Your task to perform on an android device: install app "Google Translate" Image 0: 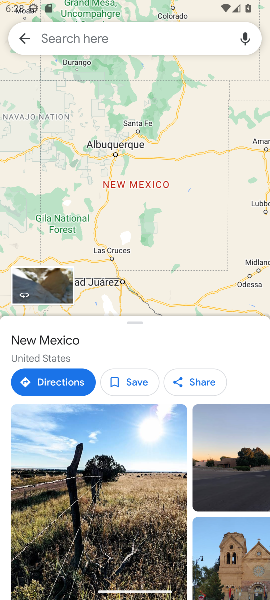
Step 0: press home button
Your task to perform on an android device: install app "Google Translate" Image 1: 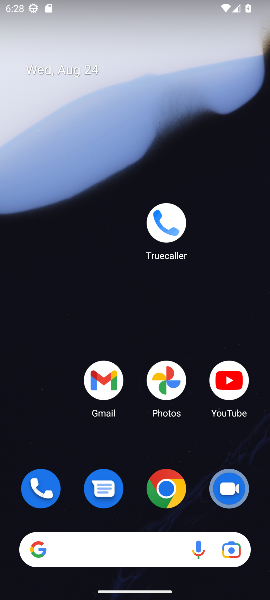
Step 1: drag from (139, 518) to (212, 41)
Your task to perform on an android device: install app "Google Translate" Image 2: 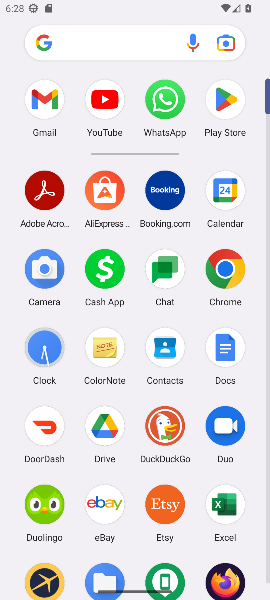
Step 2: click (215, 96)
Your task to perform on an android device: install app "Google Translate" Image 3: 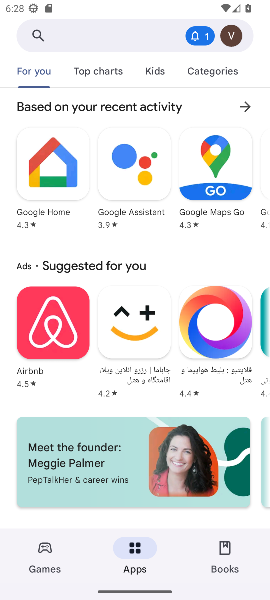
Step 3: click (195, 38)
Your task to perform on an android device: install app "Google Translate" Image 4: 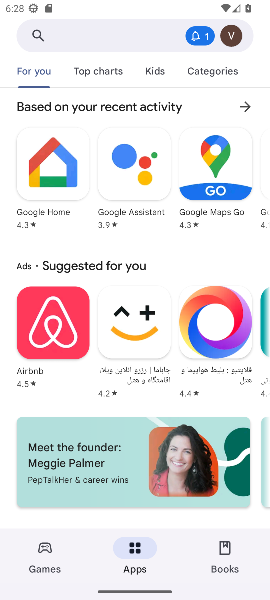
Step 4: click (172, 38)
Your task to perform on an android device: install app "Google Translate" Image 5: 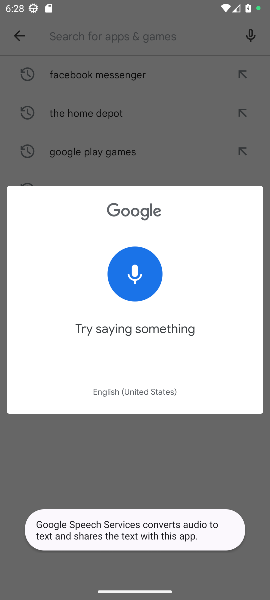
Step 5: click (206, 154)
Your task to perform on an android device: install app "Google Translate" Image 6: 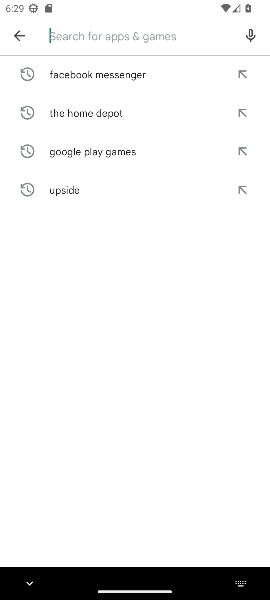
Step 6: type "google translate"
Your task to perform on an android device: install app "Google Translate" Image 7: 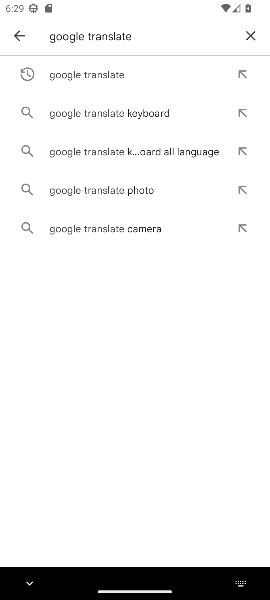
Step 7: click (71, 79)
Your task to perform on an android device: install app "Google Translate" Image 8: 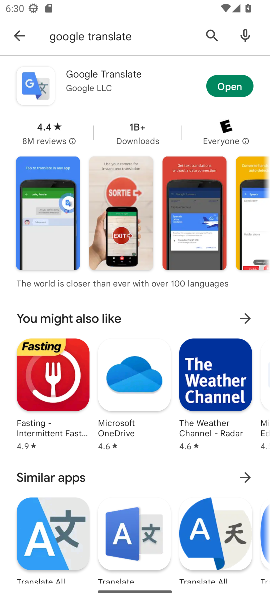
Step 8: click (215, 81)
Your task to perform on an android device: install app "Google Translate" Image 9: 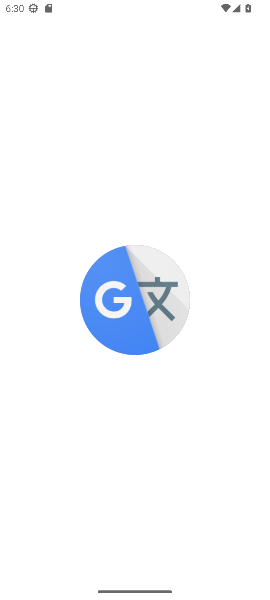
Step 9: task complete